Your task to perform on an android device: turn off javascript in the chrome app Image 0: 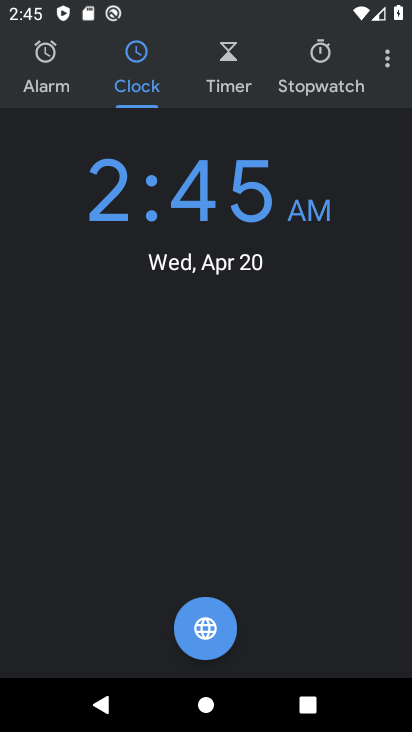
Step 0: press home button
Your task to perform on an android device: turn off javascript in the chrome app Image 1: 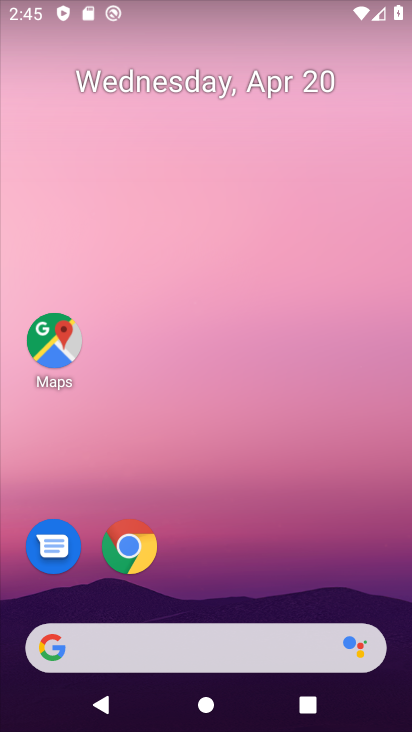
Step 1: click (148, 541)
Your task to perform on an android device: turn off javascript in the chrome app Image 2: 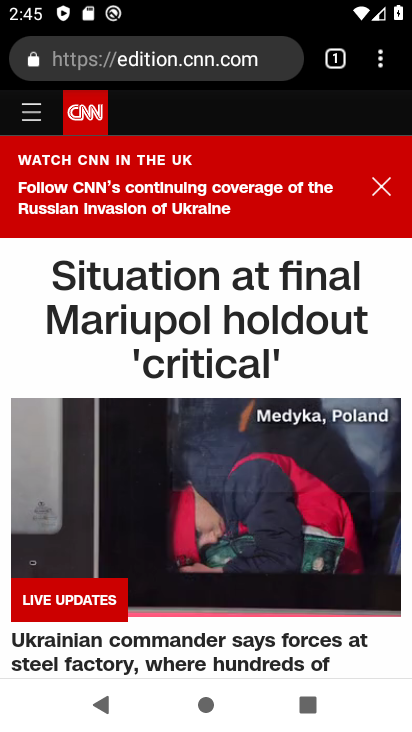
Step 2: click (382, 64)
Your task to perform on an android device: turn off javascript in the chrome app Image 3: 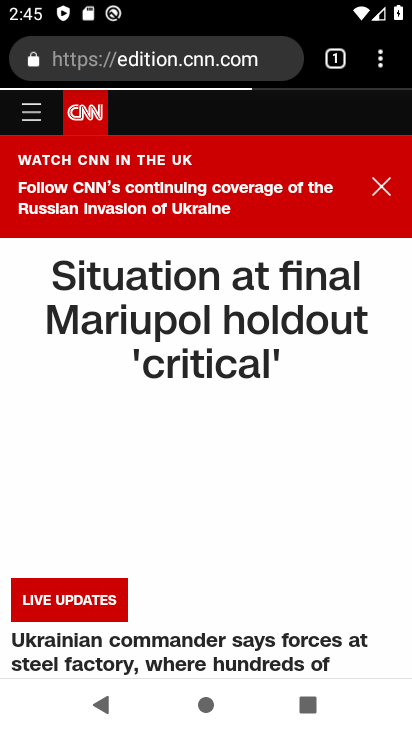
Step 3: drag from (374, 68) to (250, 580)
Your task to perform on an android device: turn off javascript in the chrome app Image 4: 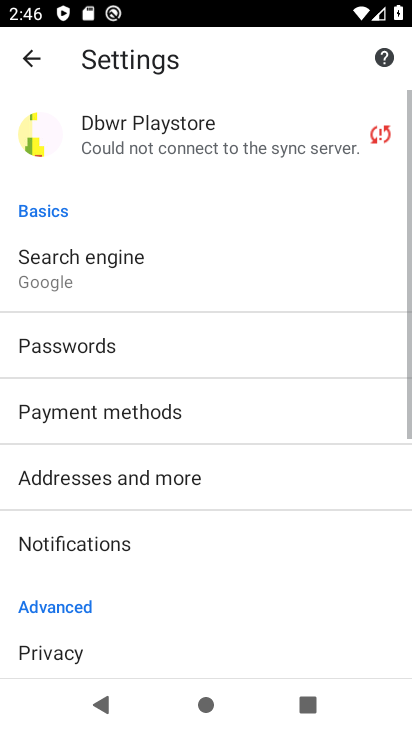
Step 4: drag from (196, 610) to (204, 224)
Your task to perform on an android device: turn off javascript in the chrome app Image 5: 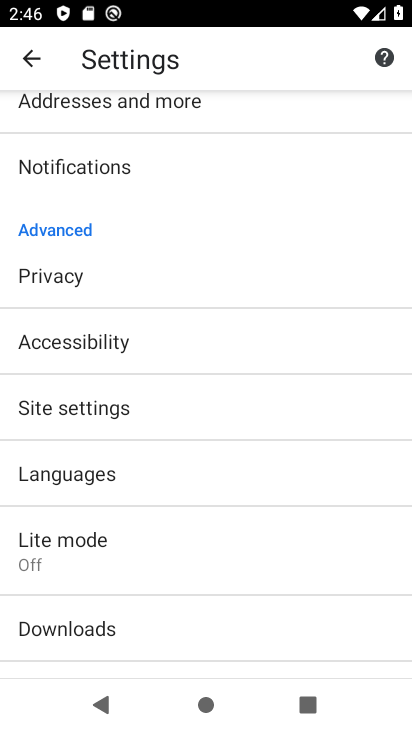
Step 5: click (96, 413)
Your task to perform on an android device: turn off javascript in the chrome app Image 6: 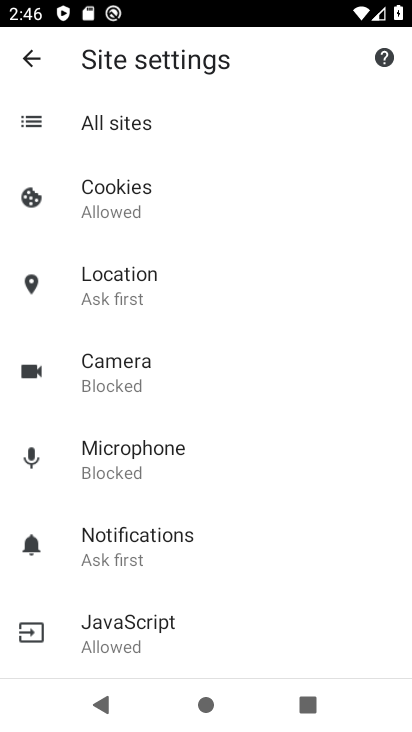
Step 6: click (140, 658)
Your task to perform on an android device: turn off javascript in the chrome app Image 7: 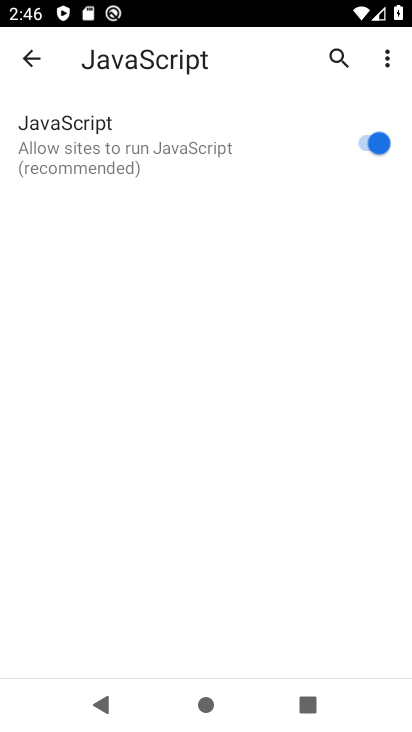
Step 7: click (385, 139)
Your task to perform on an android device: turn off javascript in the chrome app Image 8: 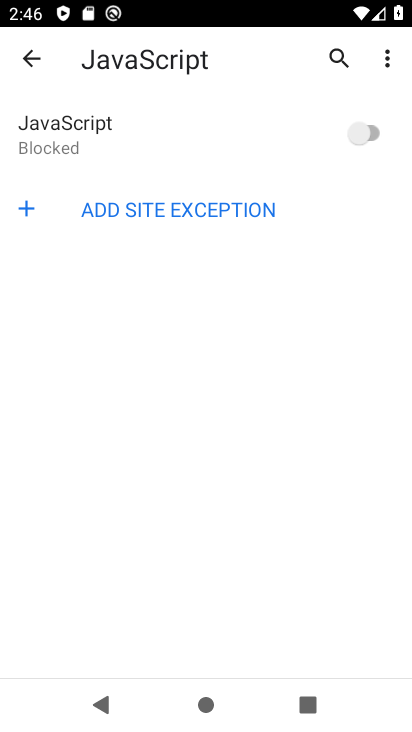
Step 8: press back button
Your task to perform on an android device: turn off javascript in the chrome app Image 9: 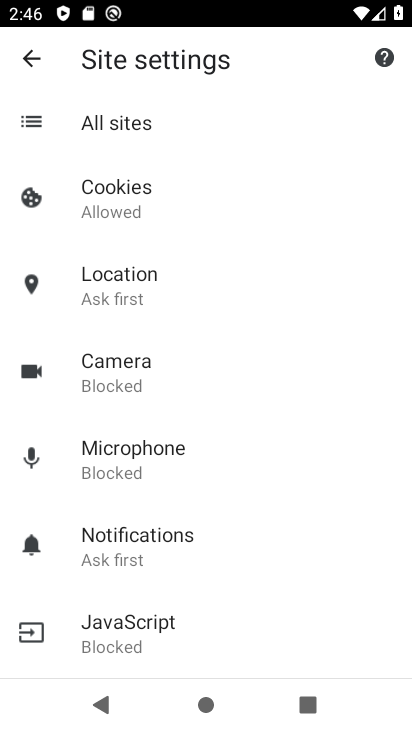
Step 9: click (134, 636)
Your task to perform on an android device: turn off javascript in the chrome app Image 10: 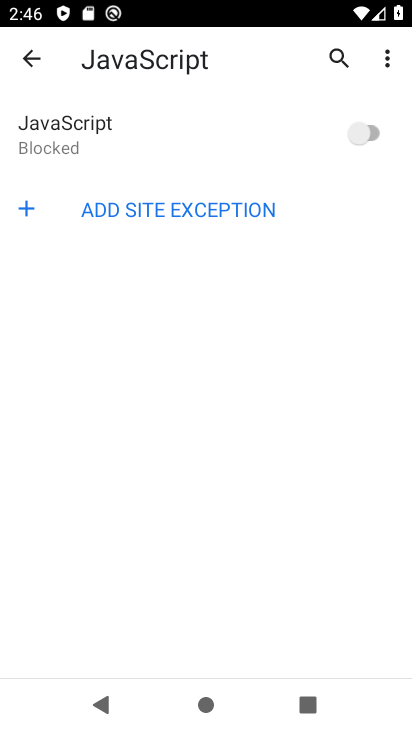
Step 10: task complete